Your task to perform on an android device: Search for pizza restaurants on Maps Image 0: 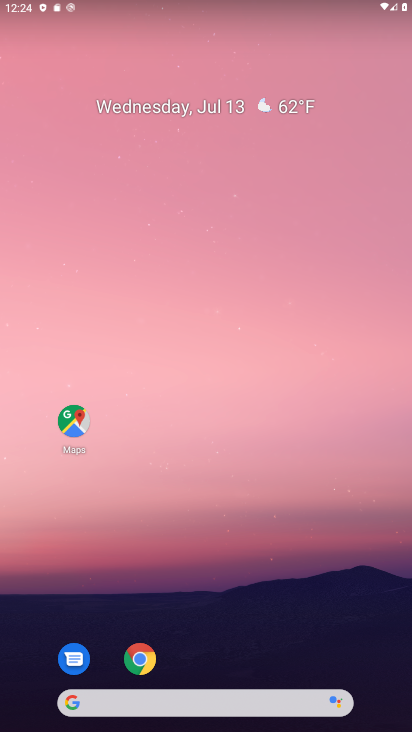
Step 0: drag from (274, 579) to (222, 252)
Your task to perform on an android device: Search for pizza restaurants on Maps Image 1: 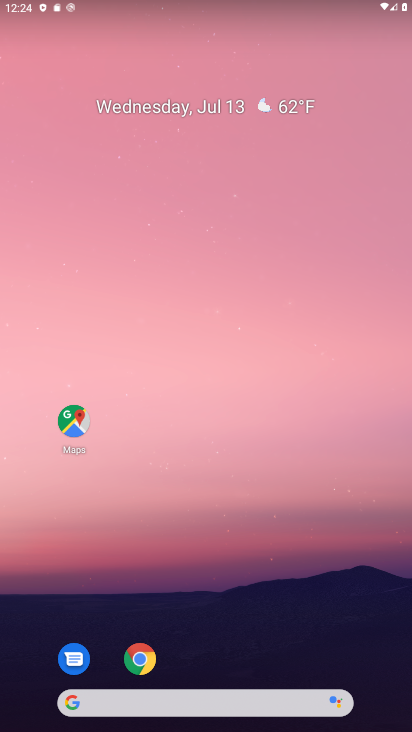
Step 1: drag from (241, 691) to (167, 202)
Your task to perform on an android device: Search for pizza restaurants on Maps Image 2: 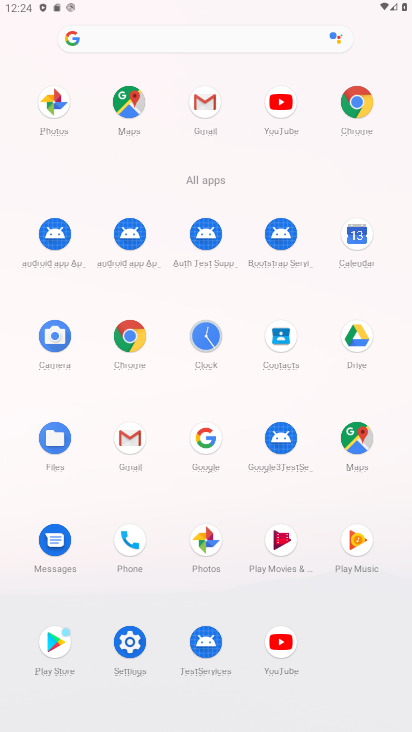
Step 2: click (356, 433)
Your task to perform on an android device: Search for pizza restaurants on Maps Image 3: 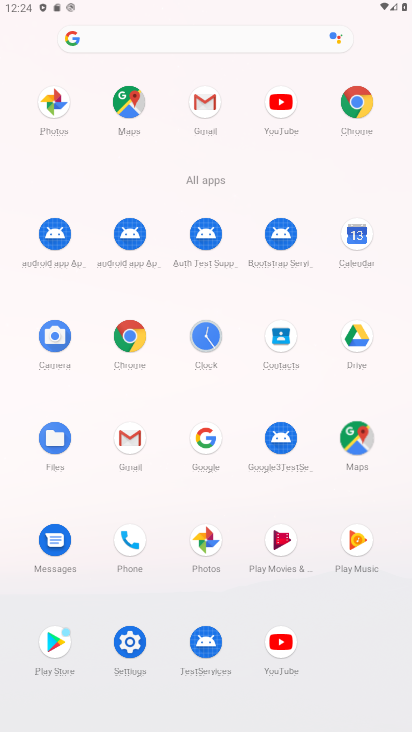
Step 3: click (358, 433)
Your task to perform on an android device: Search for pizza restaurants on Maps Image 4: 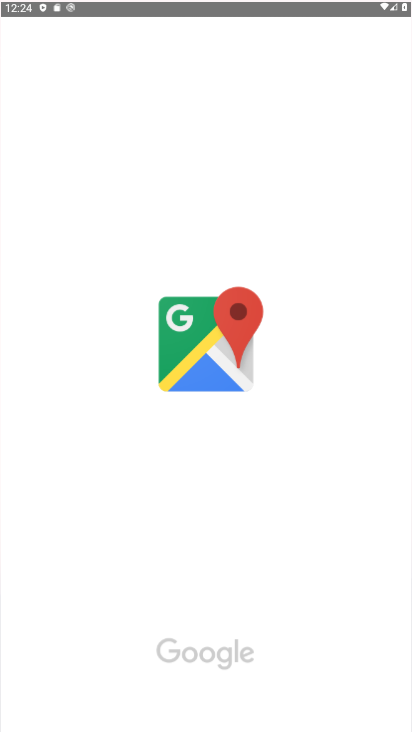
Step 4: click (361, 433)
Your task to perform on an android device: Search for pizza restaurants on Maps Image 5: 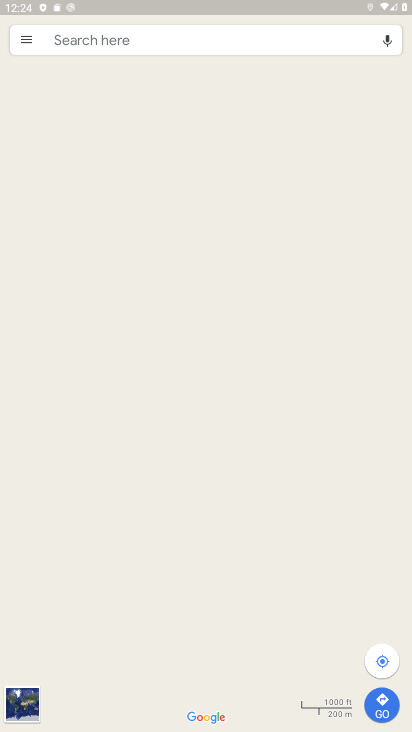
Step 5: click (67, 42)
Your task to perform on an android device: Search for pizza restaurants on Maps Image 6: 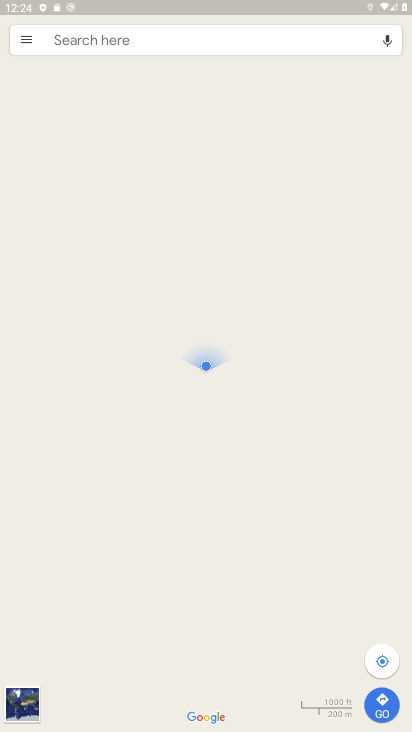
Step 6: click (67, 41)
Your task to perform on an android device: Search for pizza restaurants on Maps Image 7: 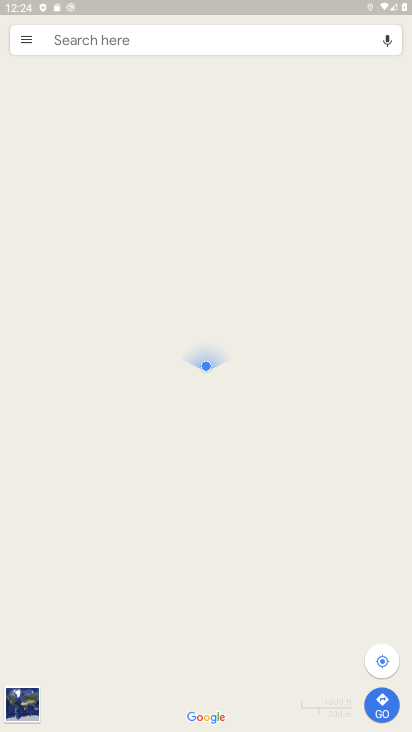
Step 7: click (67, 40)
Your task to perform on an android device: Search for pizza restaurants on Maps Image 8: 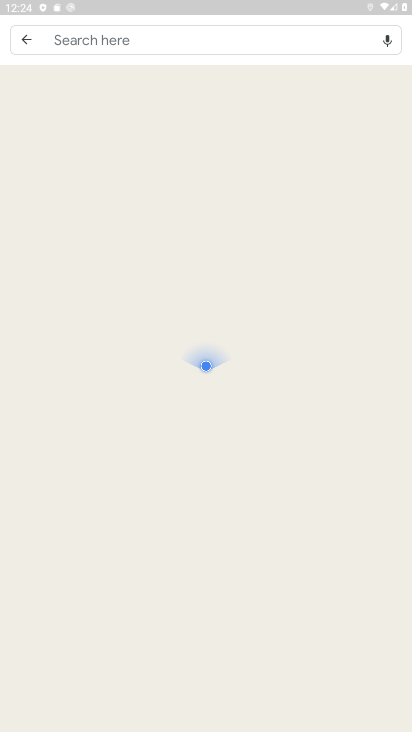
Step 8: click (68, 39)
Your task to perform on an android device: Search for pizza restaurants on Maps Image 9: 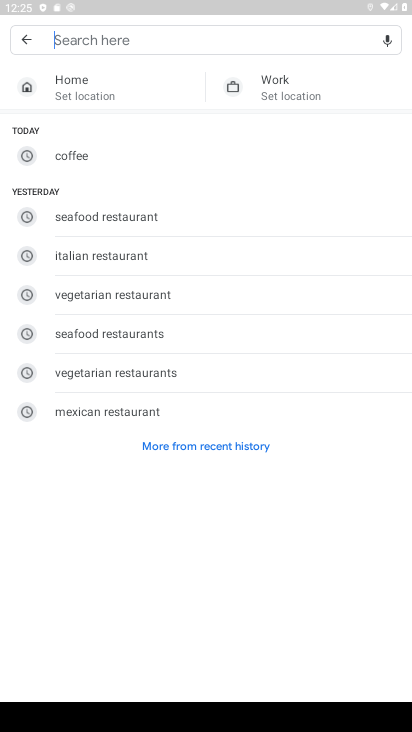
Step 9: type "pizza restaurants"
Your task to perform on an android device: Search for pizza restaurants on Maps Image 10: 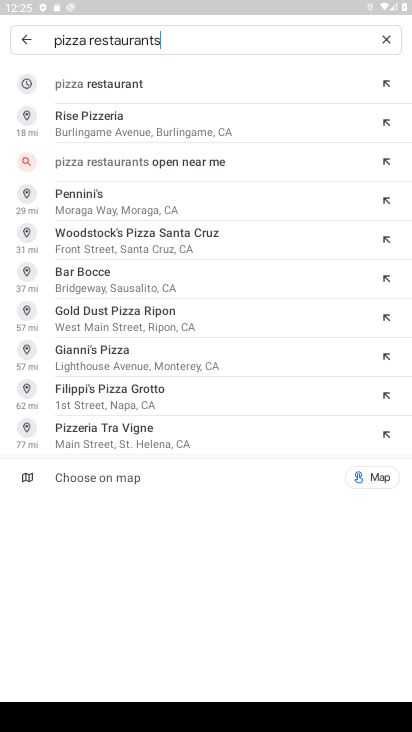
Step 10: click (119, 79)
Your task to perform on an android device: Search for pizza restaurants on Maps Image 11: 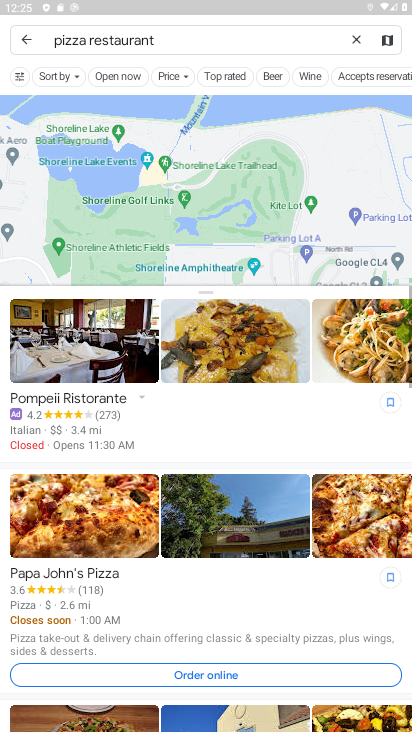
Step 11: task complete